Your task to perform on an android device: show emergency info Image 0: 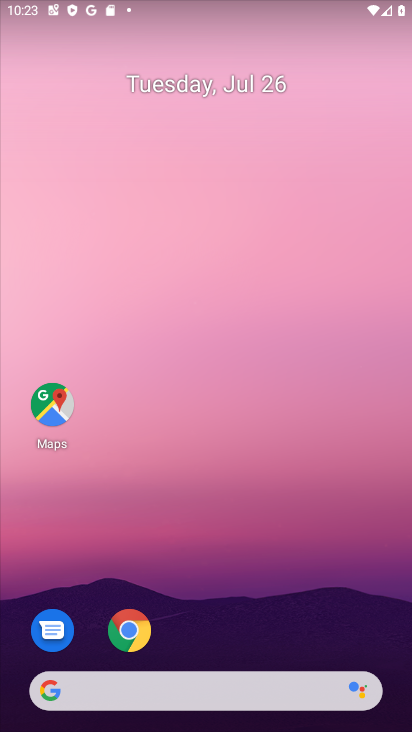
Step 0: drag from (192, 684) to (254, 194)
Your task to perform on an android device: show emergency info Image 1: 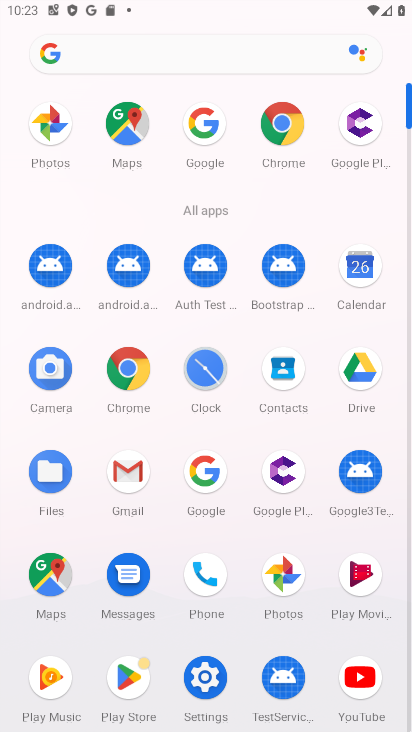
Step 1: click (204, 677)
Your task to perform on an android device: show emergency info Image 2: 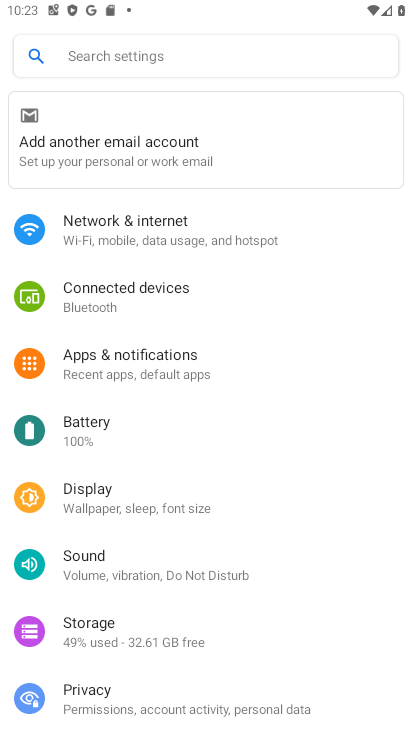
Step 2: drag from (152, 681) to (134, 505)
Your task to perform on an android device: show emergency info Image 3: 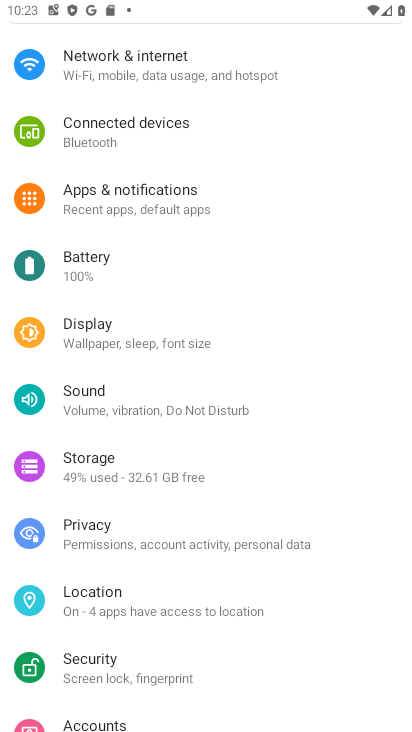
Step 3: drag from (120, 636) to (146, 413)
Your task to perform on an android device: show emergency info Image 4: 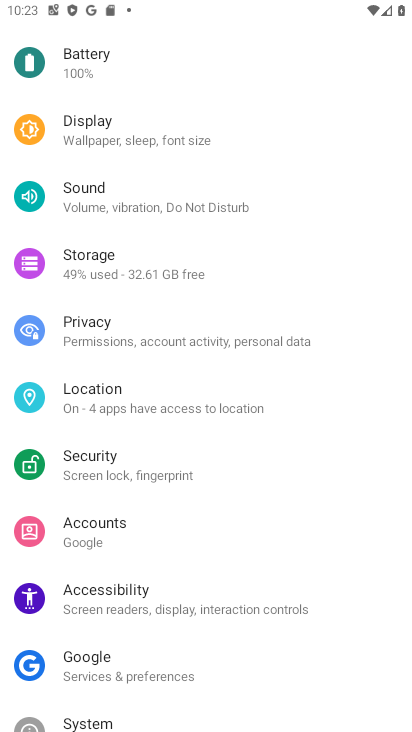
Step 4: drag from (122, 627) to (164, 440)
Your task to perform on an android device: show emergency info Image 5: 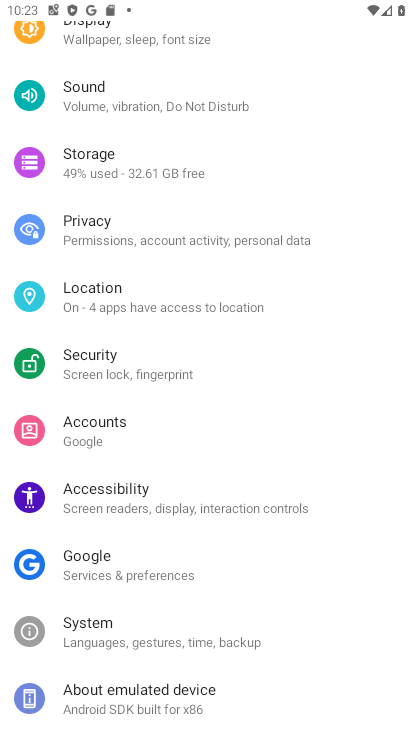
Step 5: click (136, 693)
Your task to perform on an android device: show emergency info Image 6: 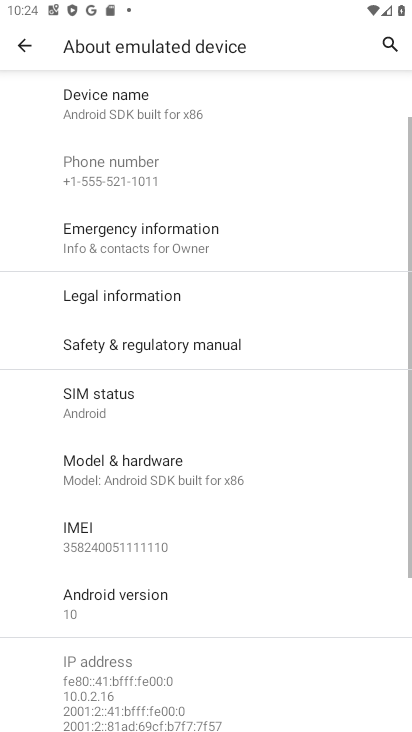
Step 6: task complete